Your task to perform on an android device: Open Google Maps Image 0: 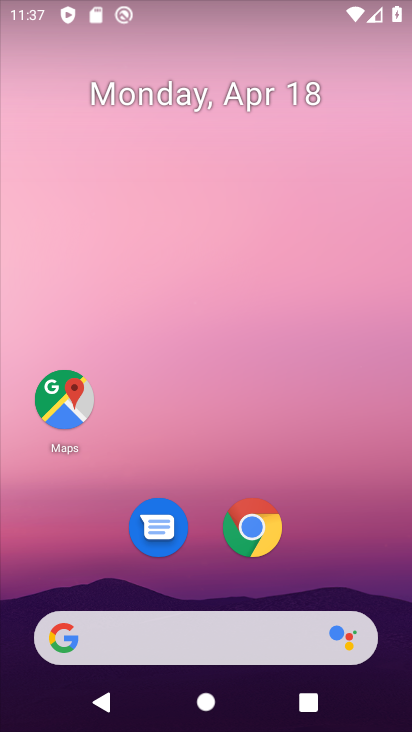
Step 0: drag from (315, 573) to (358, 42)
Your task to perform on an android device: Open Google Maps Image 1: 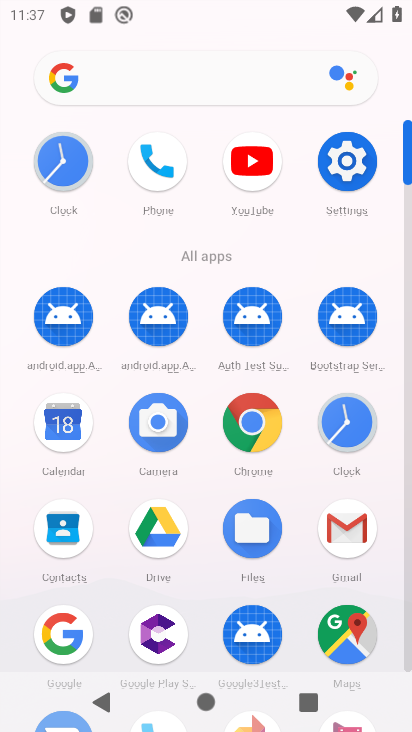
Step 1: click (332, 615)
Your task to perform on an android device: Open Google Maps Image 2: 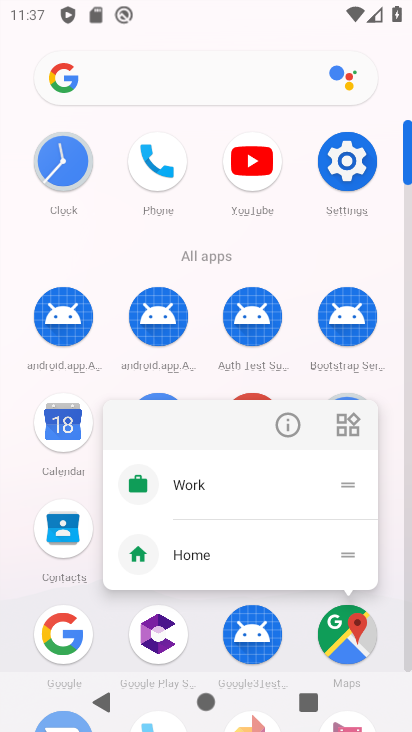
Step 2: click (337, 612)
Your task to perform on an android device: Open Google Maps Image 3: 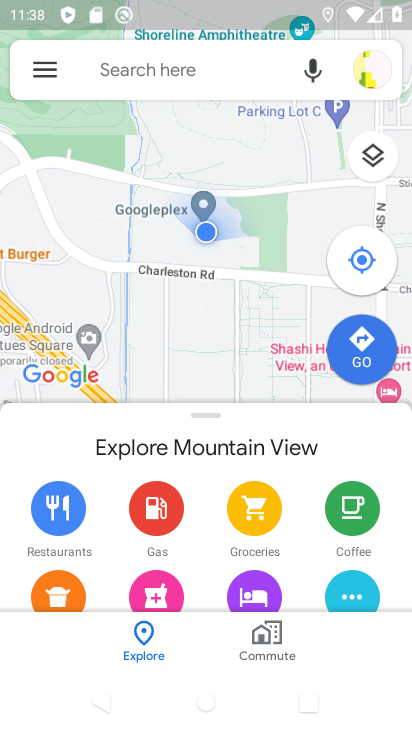
Step 3: task complete